Your task to perform on an android device: open chrome and create a bookmark for the current page Image 0: 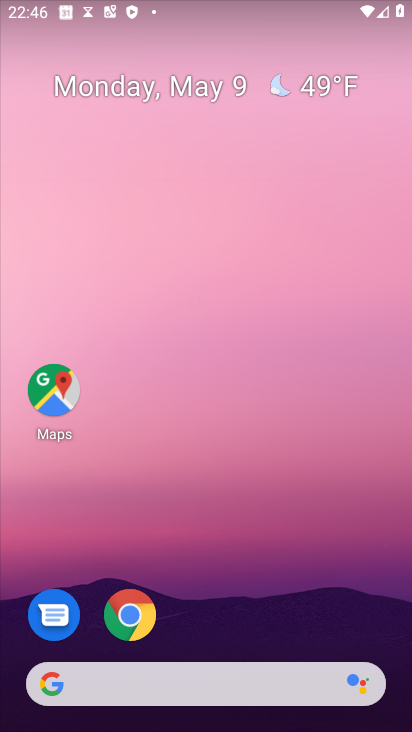
Step 0: drag from (222, 643) to (221, 161)
Your task to perform on an android device: open chrome and create a bookmark for the current page Image 1: 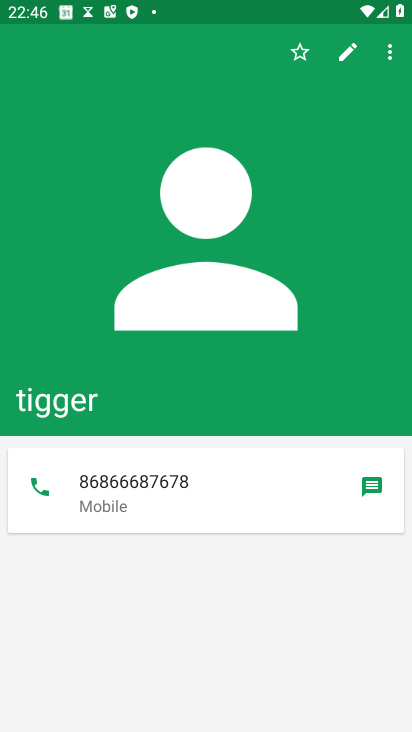
Step 1: press home button
Your task to perform on an android device: open chrome and create a bookmark for the current page Image 2: 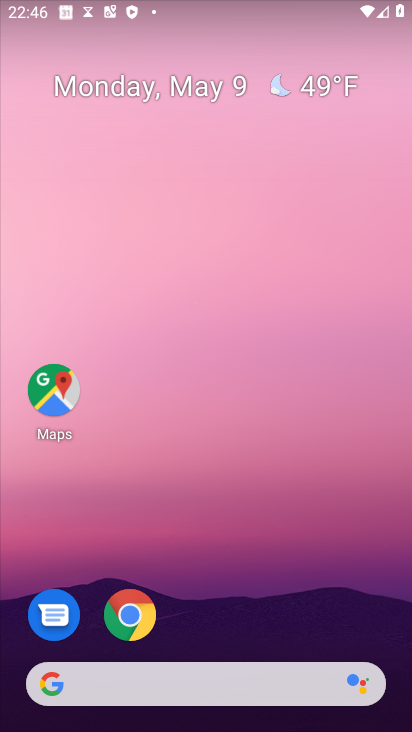
Step 2: click (120, 625)
Your task to perform on an android device: open chrome and create a bookmark for the current page Image 3: 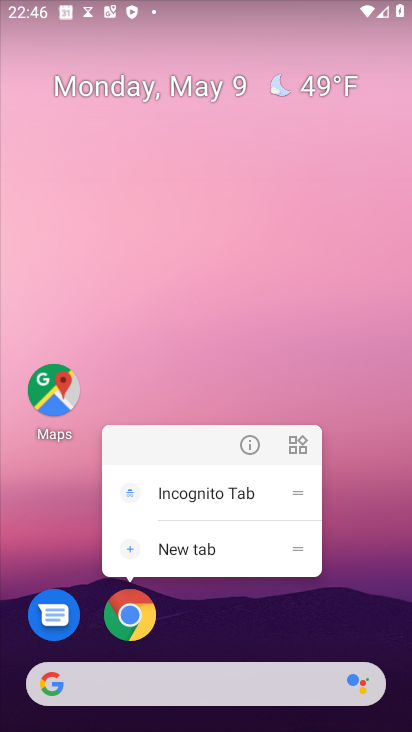
Step 3: click (126, 631)
Your task to perform on an android device: open chrome and create a bookmark for the current page Image 4: 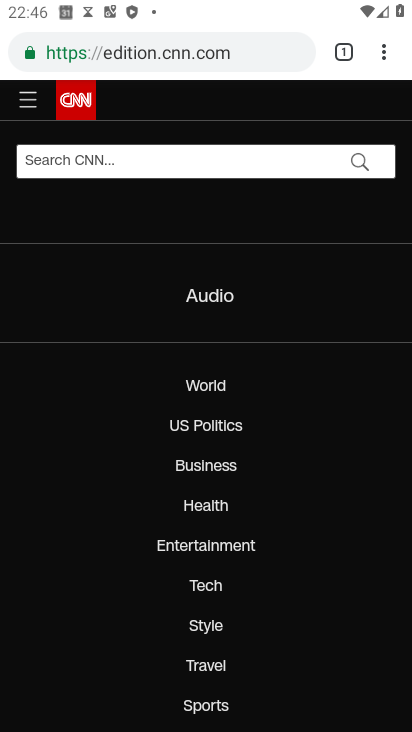
Step 4: click (388, 51)
Your task to perform on an android device: open chrome and create a bookmark for the current page Image 5: 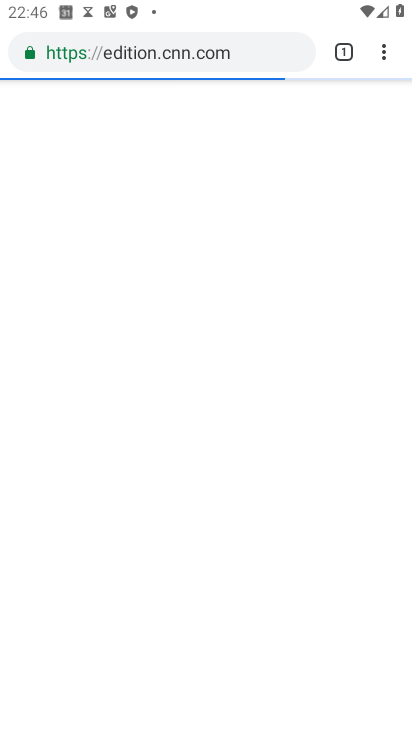
Step 5: drag from (388, 51) to (231, 263)
Your task to perform on an android device: open chrome and create a bookmark for the current page Image 6: 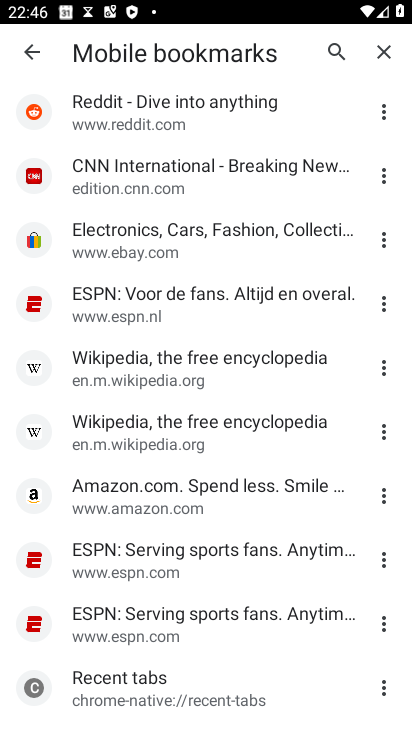
Step 6: click (389, 52)
Your task to perform on an android device: open chrome and create a bookmark for the current page Image 7: 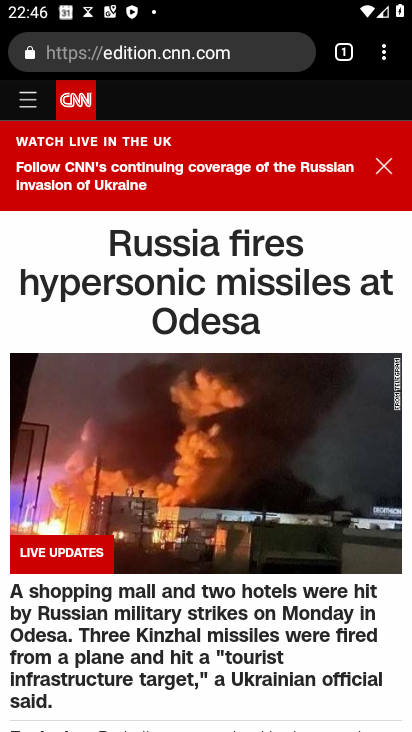
Step 7: task complete